Your task to perform on an android device: Do I have any events this weekend? Image 0: 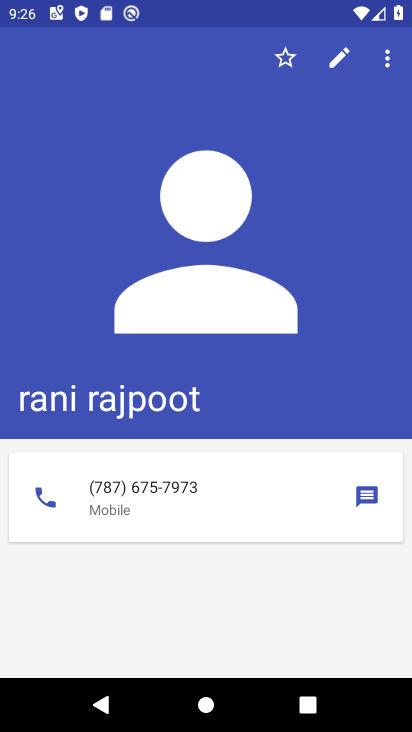
Step 0: press home button
Your task to perform on an android device: Do I have any events this weekend? Image 1: 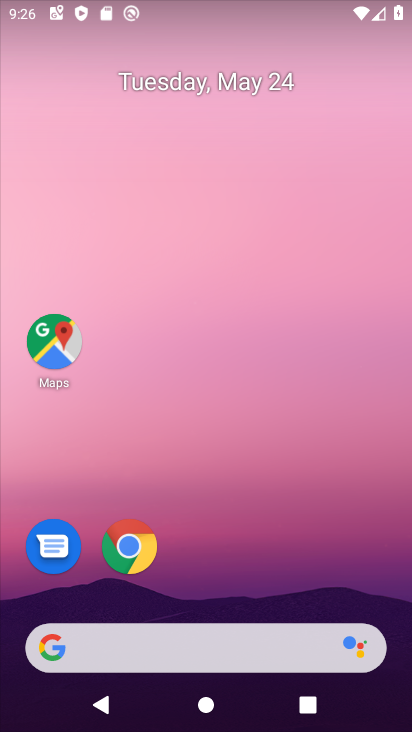
Step 1: drag from (190, 599) to (233, 297)
Your task to perform on an android device: Do I have any events this weekend? Image 2: 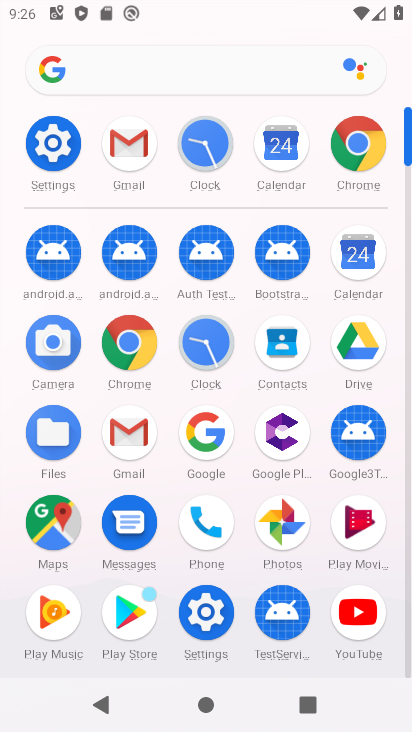
Step 2: click (344, 255)
Your task to perform on an android device: Do I have any events this weekend? Image 3: 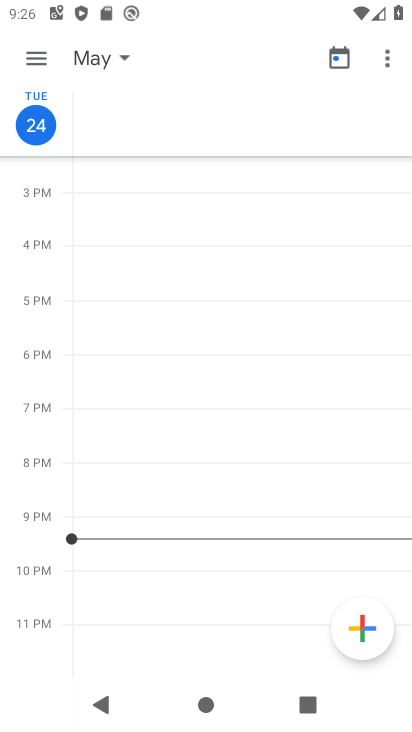
Step 3: click (117, 59)
Your task to perform on an android device: Do I have any events this weekend? Image 4: 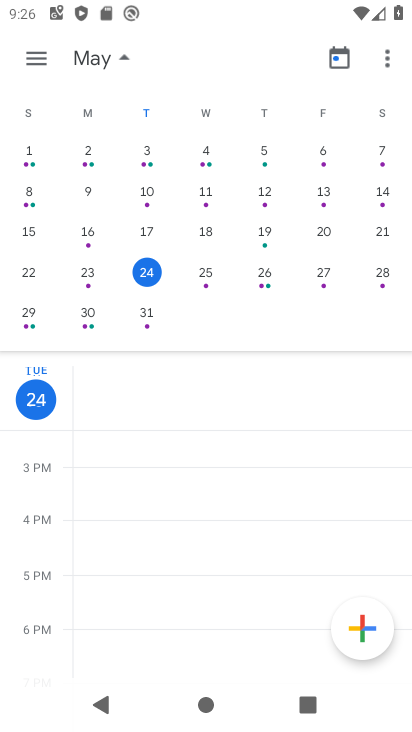
Step 4: click (30, 313)
Your task to perform on an android device: Do I have any events this weekend? Image 5: 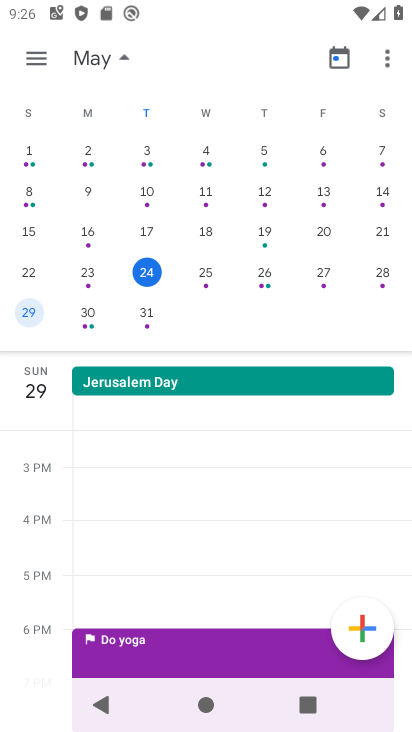
Step 5: click (157, 382)
Your task to perform on an android device: Do I have any events this weekend? Image 6: 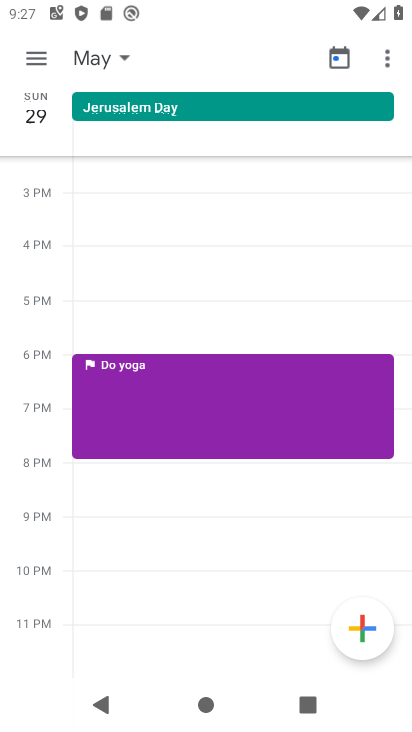
Step 6: task complete